Your task to perform on an android device: stop showing notifications on the lock screen Image 0: 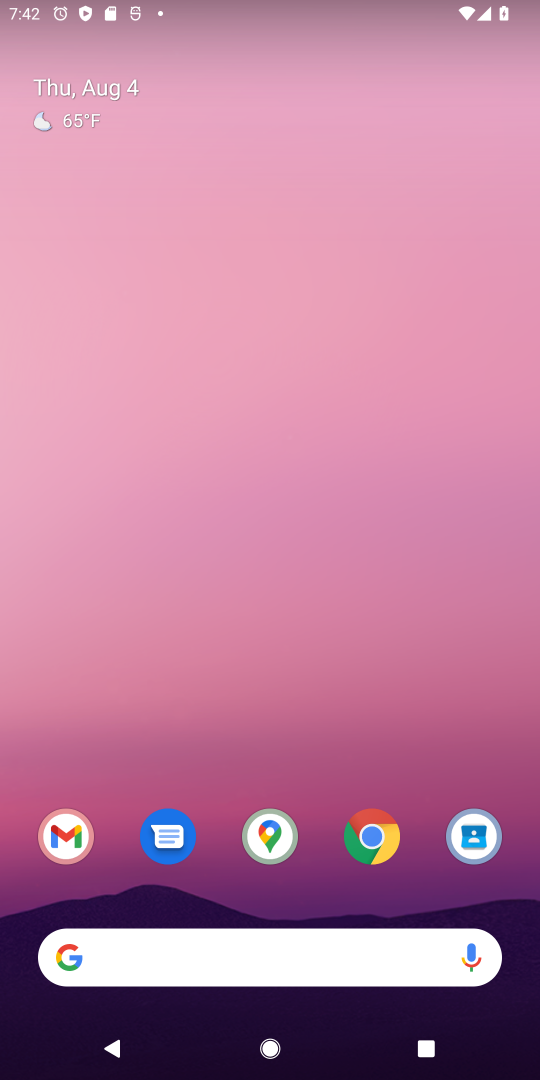
Step 0: drag from (249, 828) to (373, 66)
Your task to perform on an android device: stop showing notifications on the lock screen Image 1: 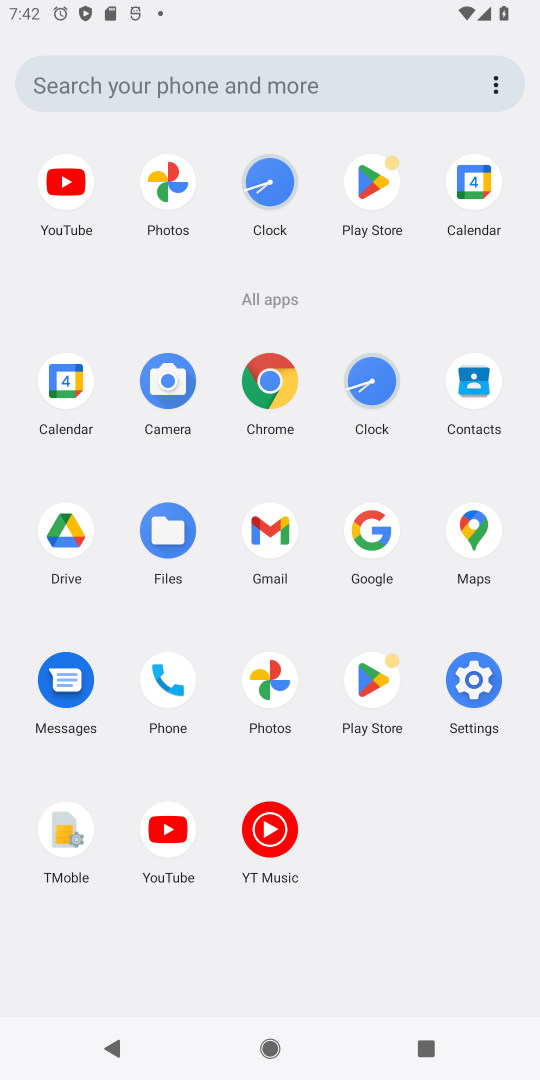
Step 1: click (484, 669)
Your task to perform on an android device: stop showing notifications on the lock screen Image 2: 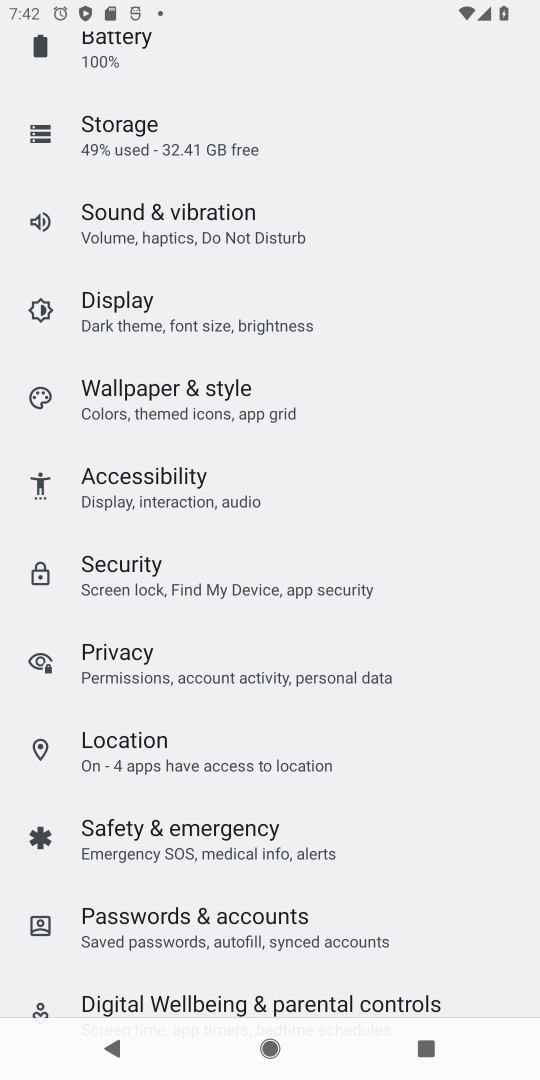
Step 2: drag from (319, 312) to (344, 1045)
Your task to perform on an android device: stop showing notifications on the lock screen Image 3: 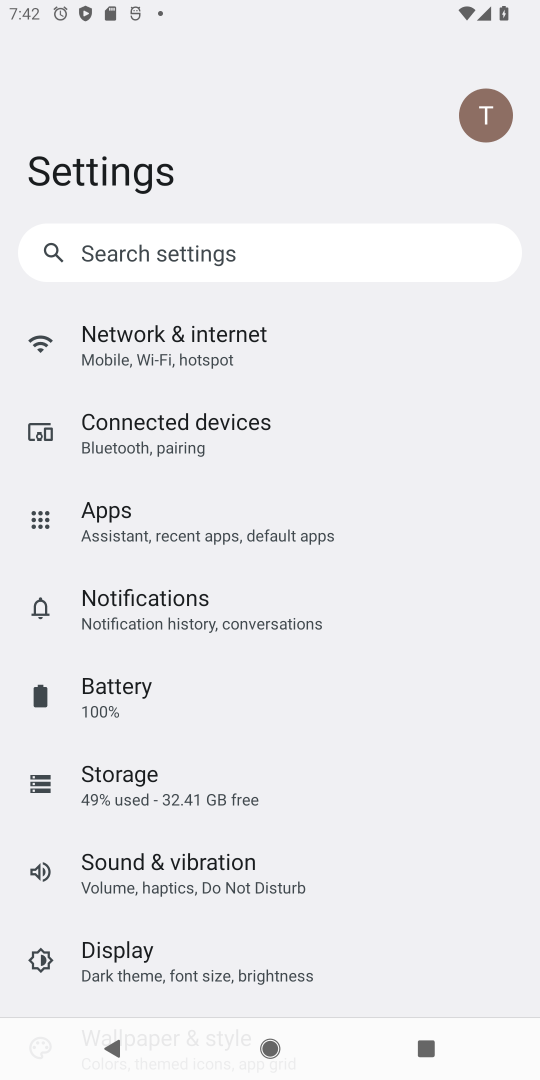
Step 3: click (212, 614)
Your task to perform on an android device: stop showing notifications on the lock screen Image 4: 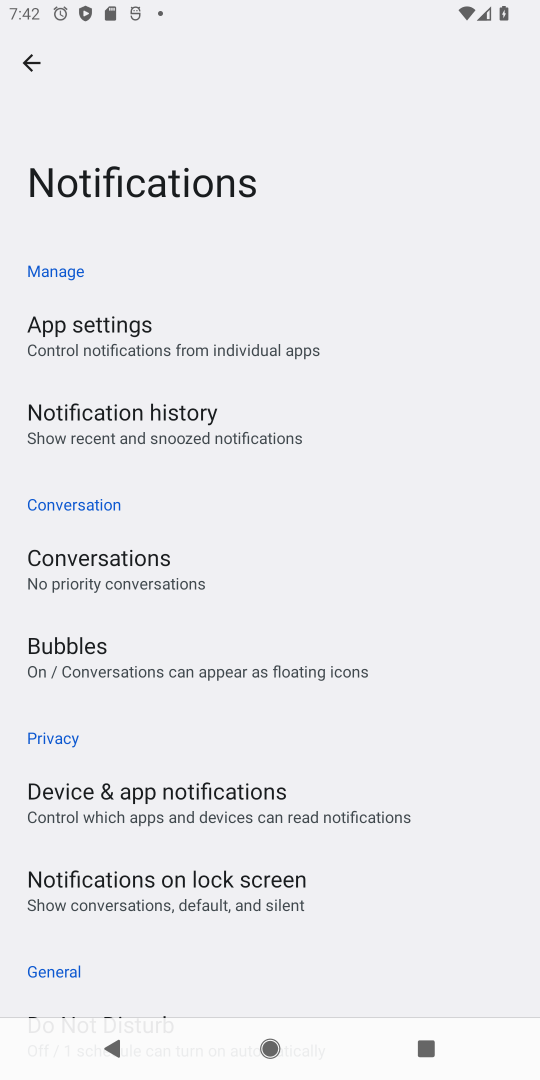
Step 4: click (242, 884)
Your task to perform on an android device: stop showing notifications on the lock screen Image 5: 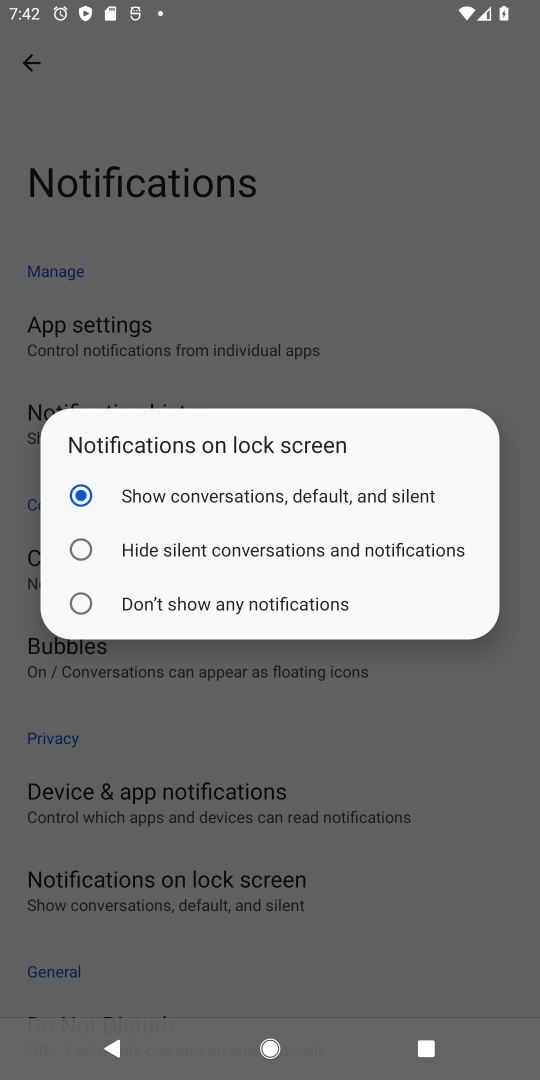
Step 5: click (116, 603)
Your task to perform on an android device: stop showing notifications on the lock screen Image 6: 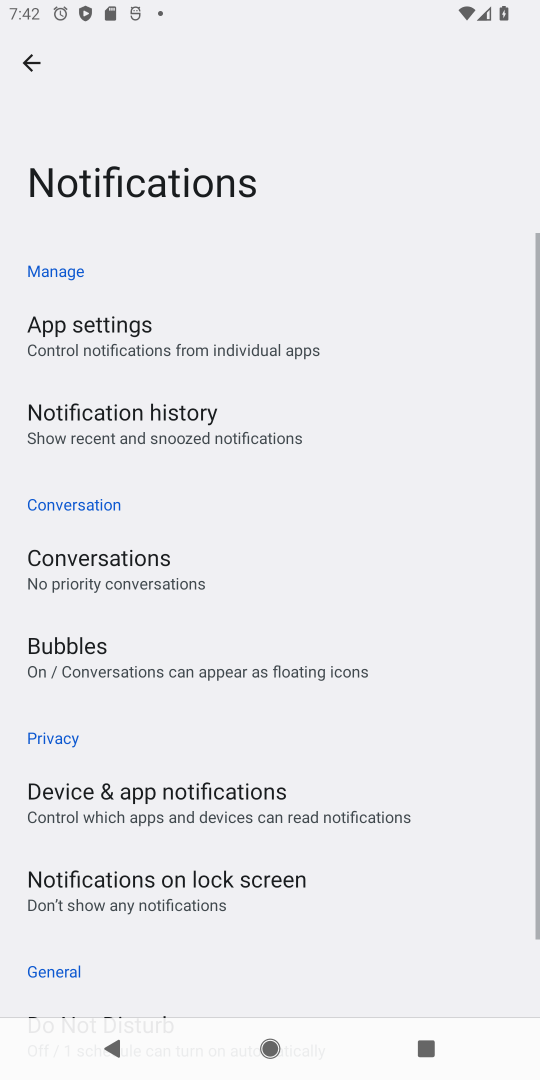
Step 6: task complete